Your task to perform on an android device: Open privacy settings Image 0: 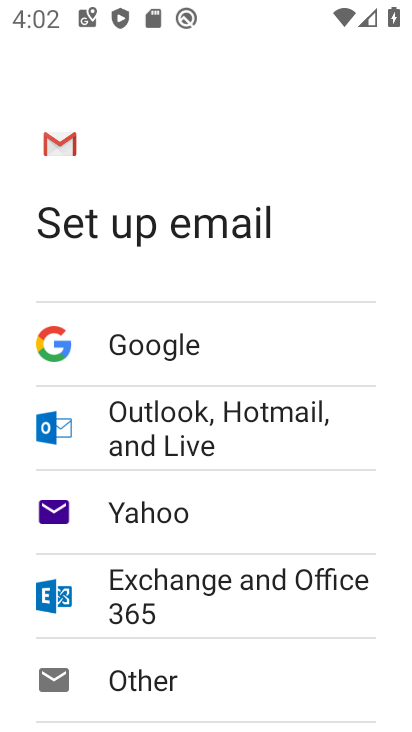
Step 0: press home button
Your task to perform on an android device: Open privacy settings Image 1: 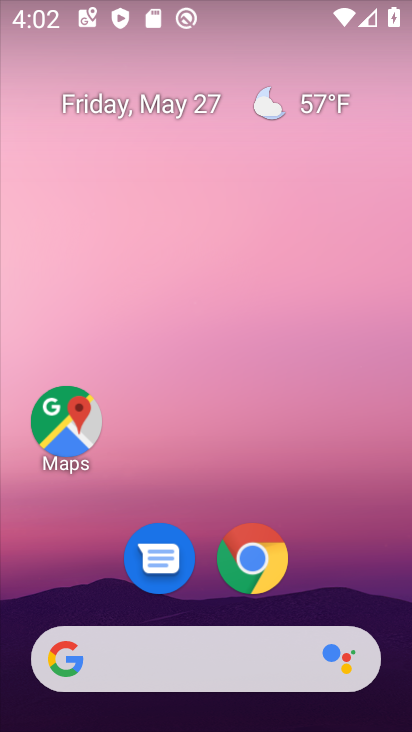
Step 1: drag from (377, 603) to (298, 73)
Your task to perform on an android device: Open privacy settings Image 2: 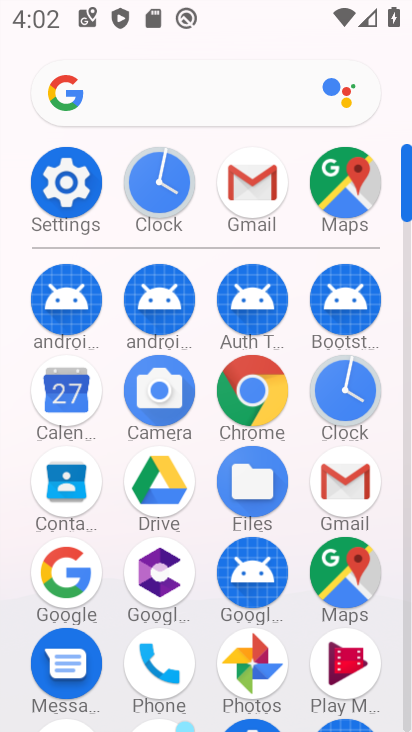
Step 2: click (71, 150)
Your task to perform on an android device: Open privacy settings Image 3: 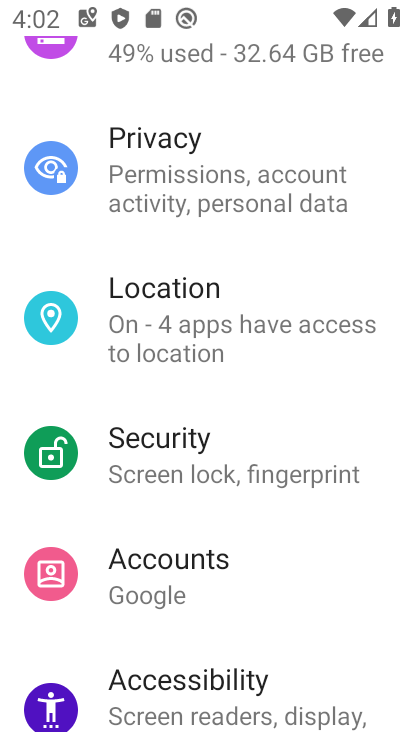
Step 3: click (218, 196)
Your task to perform on an android device: Open privacy settings Image 4: 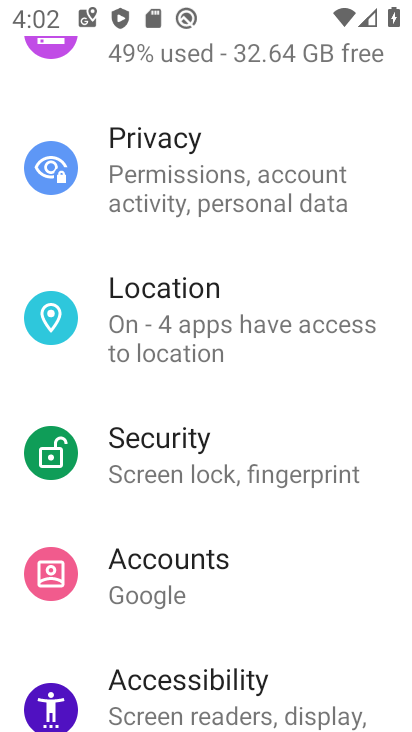
Step 4: task complete